Your task to perform on an android device: Search for vegetarian restaurants on Maps Image 0: 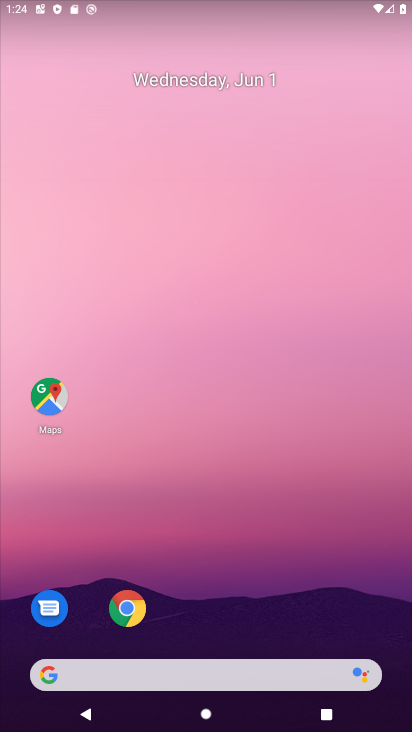
Step 0: drag from (212, 615) to (189, 0)
Your task to perform on an android device: Search for vegetarian restaurants on Maps Image 1: 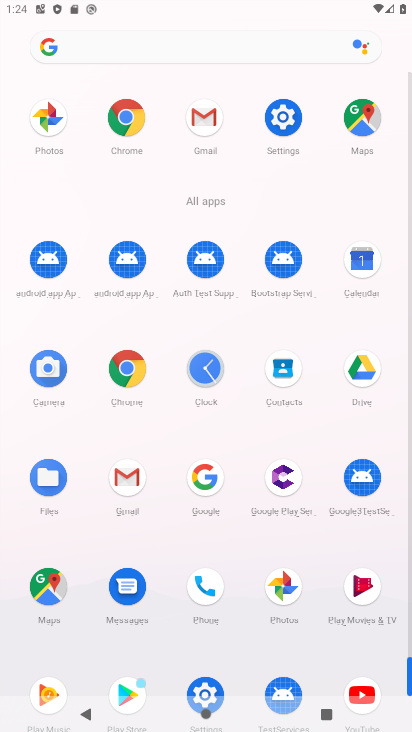
Step 1: click (358, 104)
Your task to perform on an android device: Search for vegetarian restaurants on Maps Image 2: 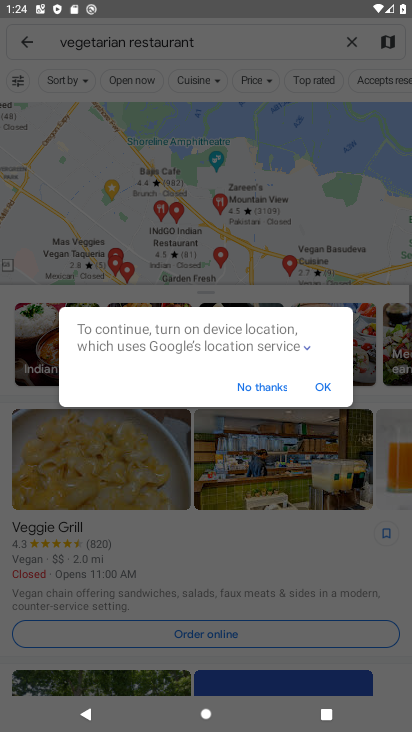
Step 2: task complete